Your task to perform on an android device: Open Reddit.com Image 0: 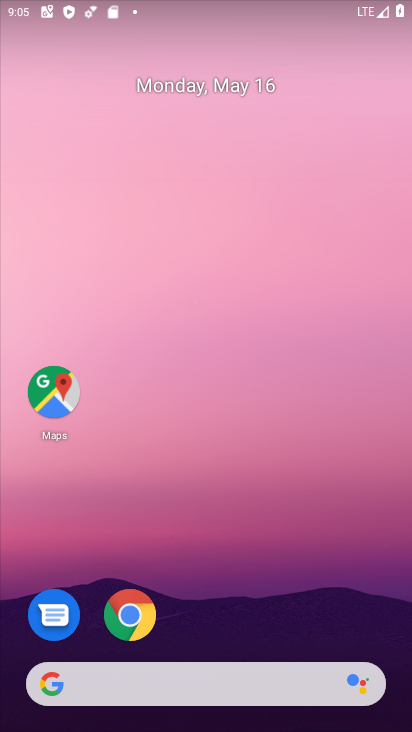
Step 0: drag from (239, 658) to (20, 0)
Your task to perform on an android device: Open Reddit.com Image 1: 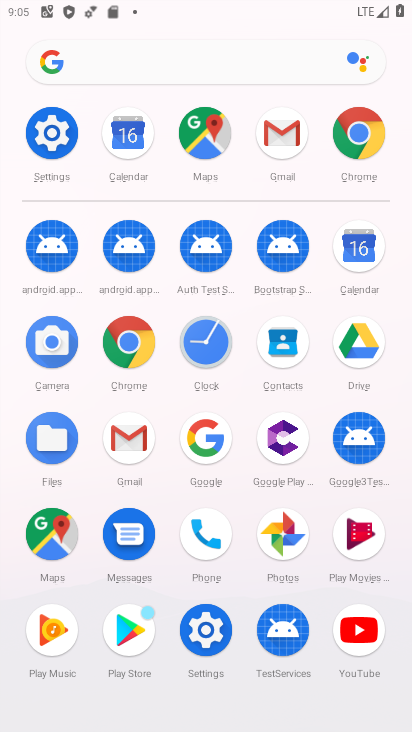
Step 1: click (362, 162)
Your task to perform on an android device: Open Reddit.com Image 2: 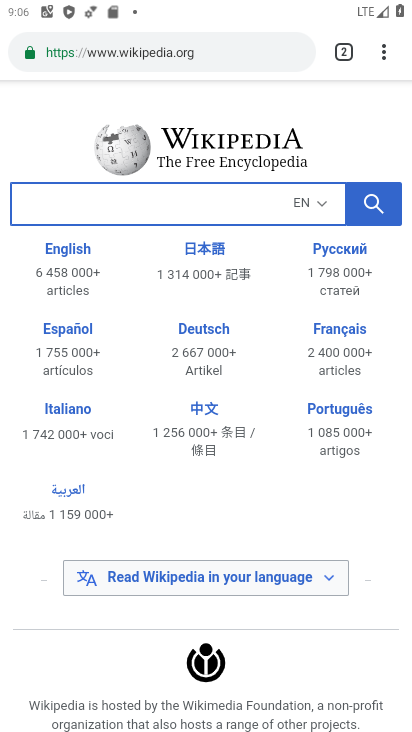
Step 2: click (198, 66)
Your task to perform on an android device: Open Reddit.com Image 3: 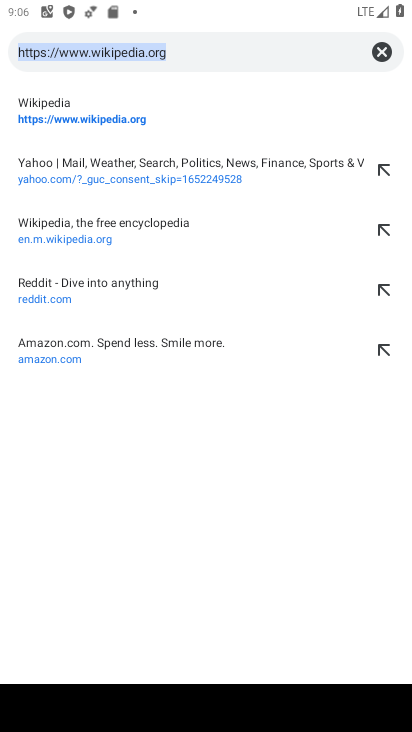
Step 3: type "reddit"
Your task to perform on an android device: Open Reddit.com Image 4: 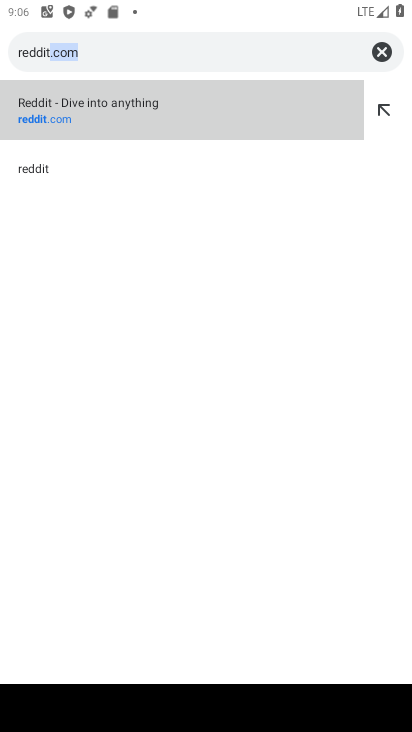
Step 4: click (172, 116)
Your task to perform on an android device: Open Reddit.com Image 5: 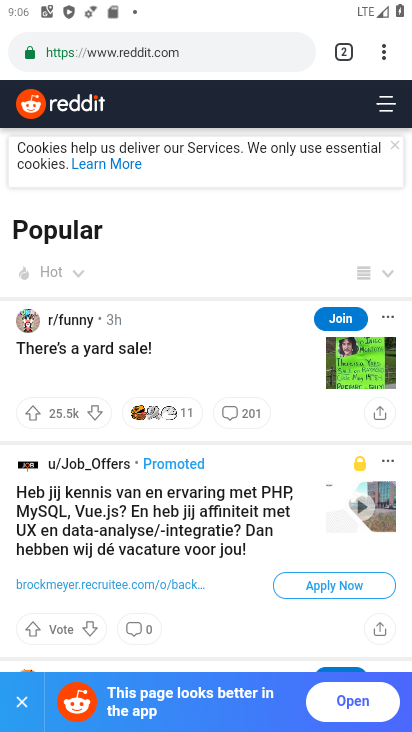
Step 5: task complete